Your task to perform on an android device: Open Chrome and go to the settings page Image 0: 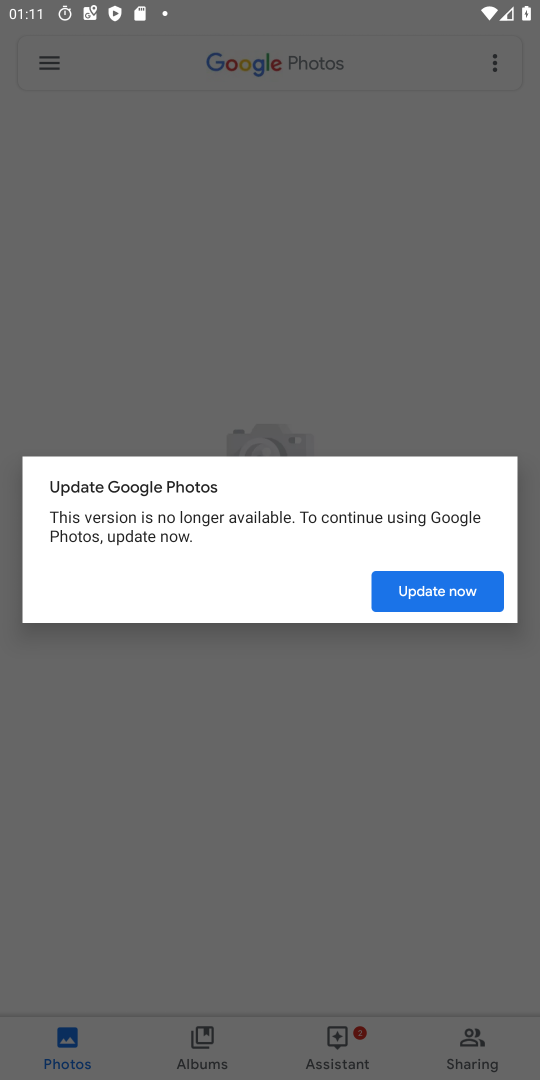
Step 0: press home button
Your task to perform on an android device: Open Chrome and go to the settings page Image 1: 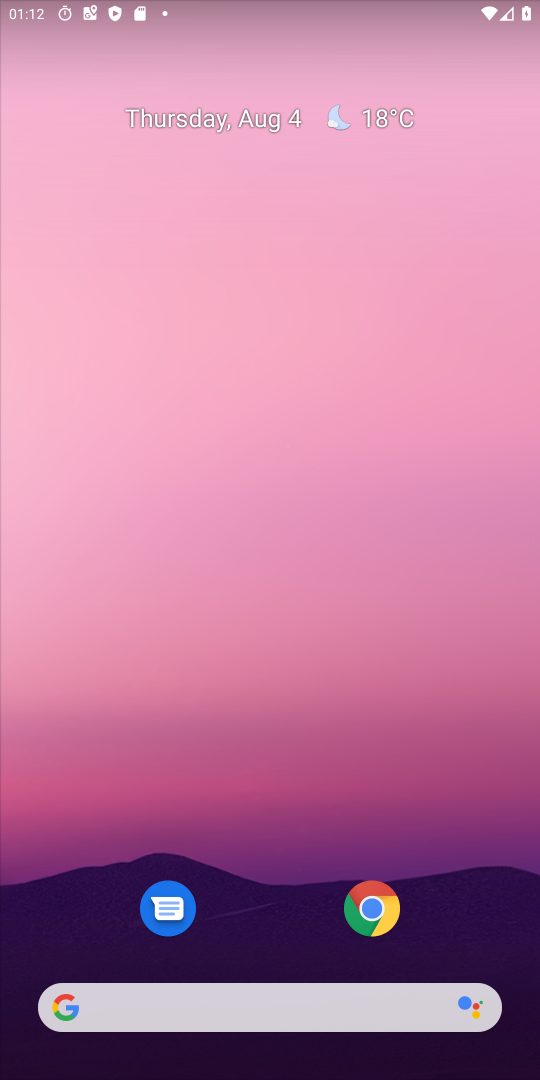
Step 1: drag from (354, 1029) to (242, 386)
Your task to perform on an android device: Open Chrome and go to the settings page Image 2: 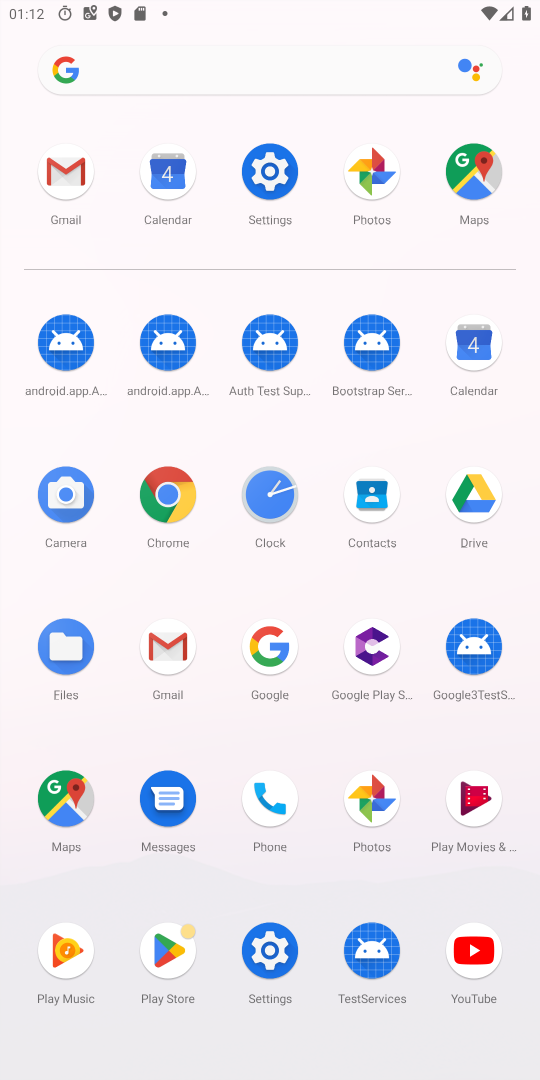
Step 2: click (176, 496)
Your task to perform on an android device: Open Chrome and go to the settings page Image 3: 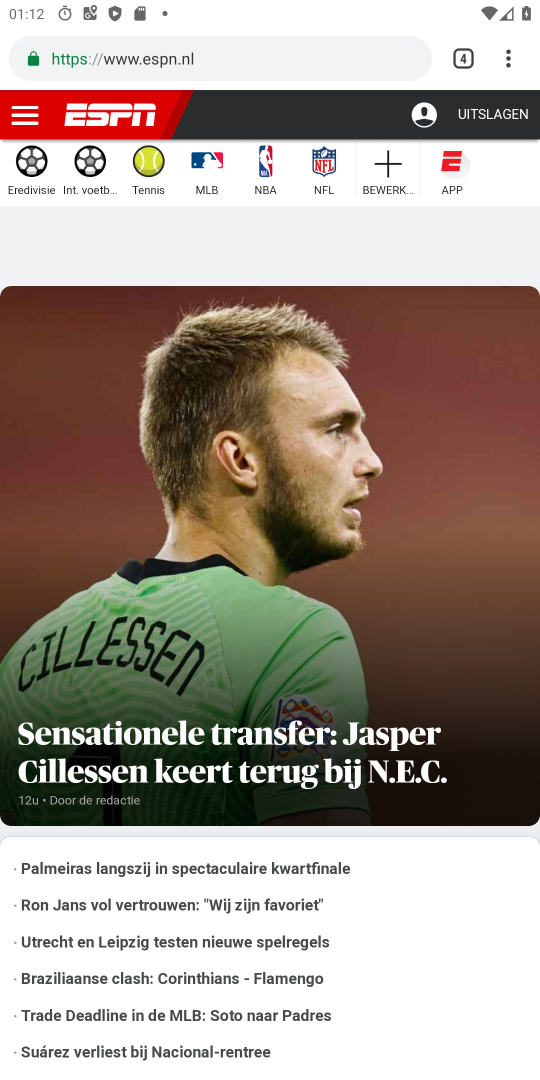
Step 3: click (504, 54)
Your task to perform on an android device: Open Chrome and go to the settings page Image 4: 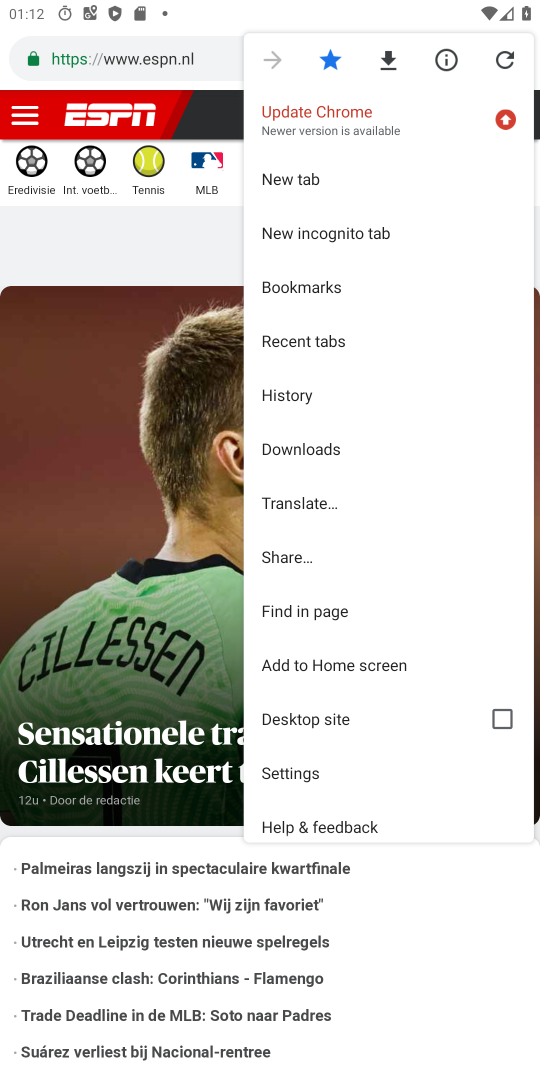
Step 4: click (286, 767)
Your task to perform on an android device: Open Chrome and go to the settings page Image 5: 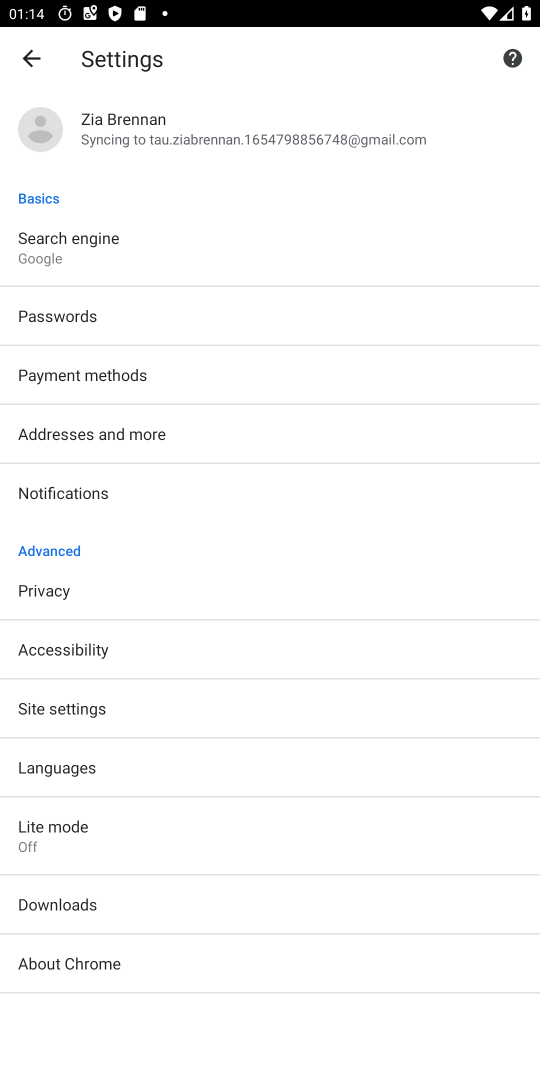
Step 5: task complete